Your task to perform on an android device: Empty the shopping cart on costco. Search for "corsair k70" on costco, select the first entry, and add it to the cart. Image 0: 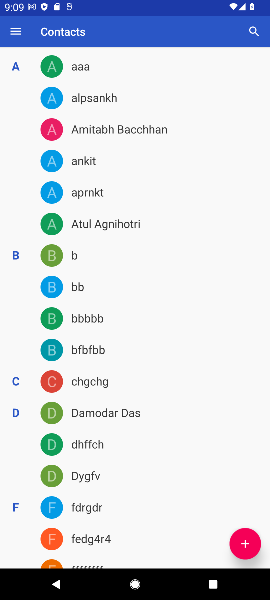
Step 0: press home button
Your task to perform on an android device: Empty the shopping cart on costco. Search for "corsair k70" on costco, select the first entry, and add it to the cart. Image 1: 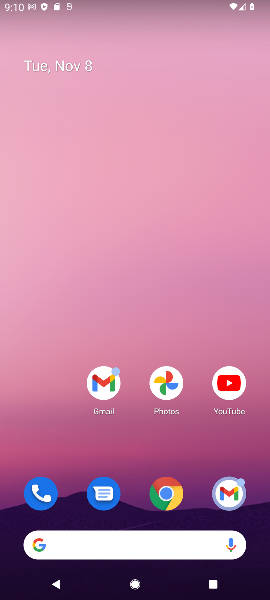
Step 1: click (165, 497)
Your task to perform on an android device: Empty the shopping cart on costco. Search for "corsair k70" on costco, select the first entry, and add it to the cart. Image 2: 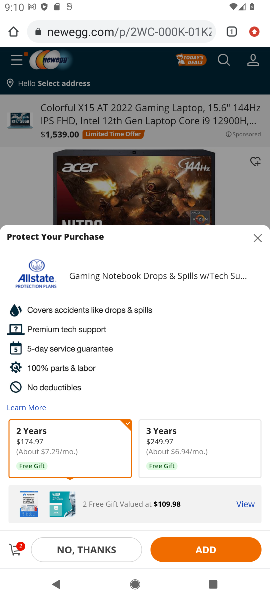
Step 2: click (100, 35)
Your task to perform on an android device: Empty the shopping cart on costco. Search for "corsair k70" on costco, select the first entry, and add it to the cart. Image 3: 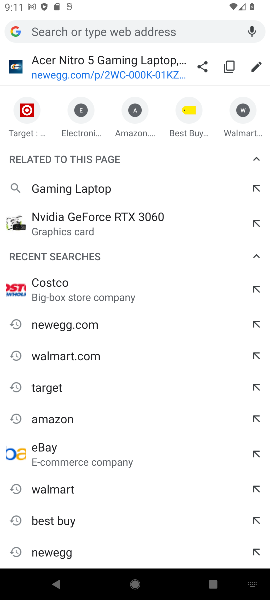
Step 3: click (107, 28)
Your task to perform on an android device: Empty the shopping cart on costco. Search for "corsair k70" on costco, select the first entry, and add it to the cart. Image 4: 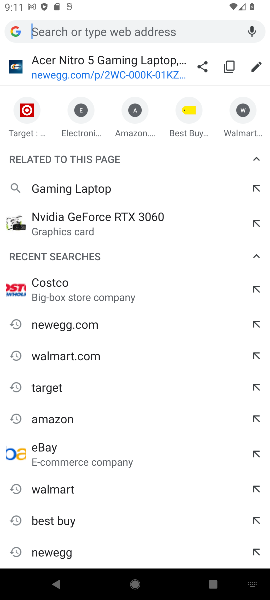
Step 4: click (46, 292)
Your task to perform on an android device: Empty the shopping cart on costco. Search for "corsair k70" on costco, select the first entry, and add it to the cart. Image 5: 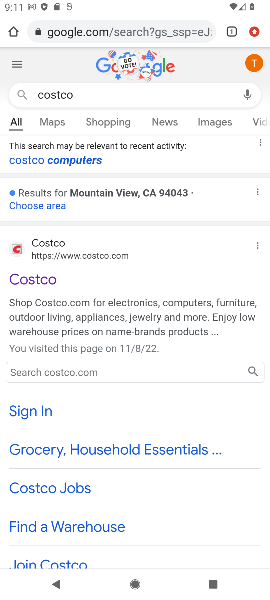
Step 5: click (46, 292)
Your task to perform on an android device: Empty the shopping cart on costco. Search for "corsair k70" on costco, select the first entry, and add it to the cart. Image 6: 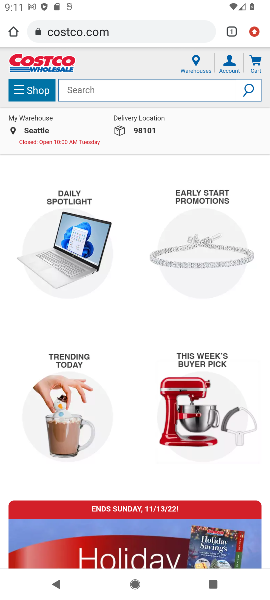
Step 6: click (254, 67)
Your task to perform on an android device: Empty the shopping cart on costco. Search for "corsair k70" on costco, select the first entry, and add it to the cart. Image 7: 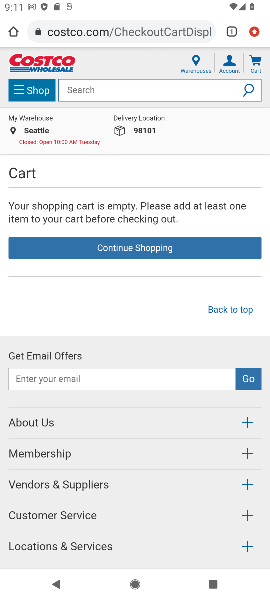
Step 7: click (123, 89)
Your task to perform on an android device: Empty the shopping cart on costco. Search for "corsair k70" on costco, select the first entry, and add it to the cart. Image 8: 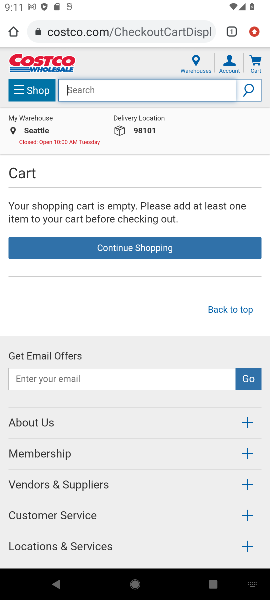
Step 8: type "corsair k70"
Your task to perform on an android device: Empty the shopping cart on costco. Search for "corsair k70" on costco, select the first entry, and add it to the cart. Image 9: 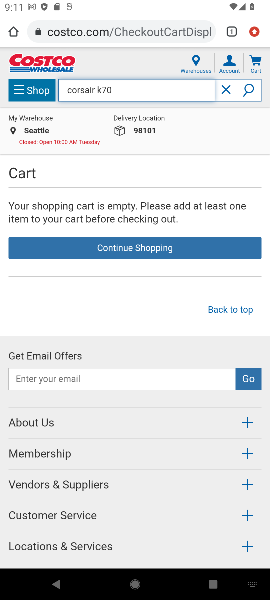
Step 9: click (247, 92)
Your task to perform on an android device: Empty the shopping cart on costco. Search for "corsair k70" on costco, select the first entry, and add it to the cart. Image 10: 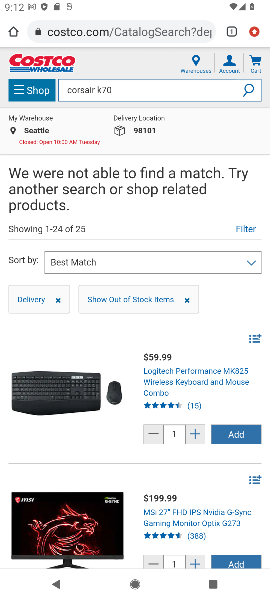
Step 10: task complete